Your task to perform on an android device: uninstall "Google Photos" Image 0: 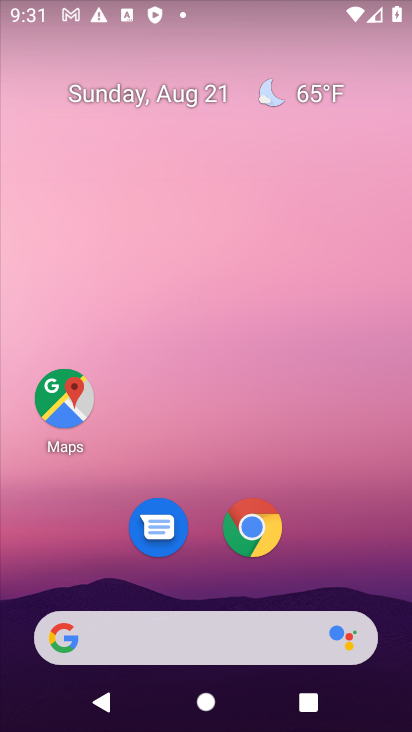
Step 0: drag from (211, 586) to (220, 275)
Your task to perform on an android device: uninstall "Google Photos" Image 1: 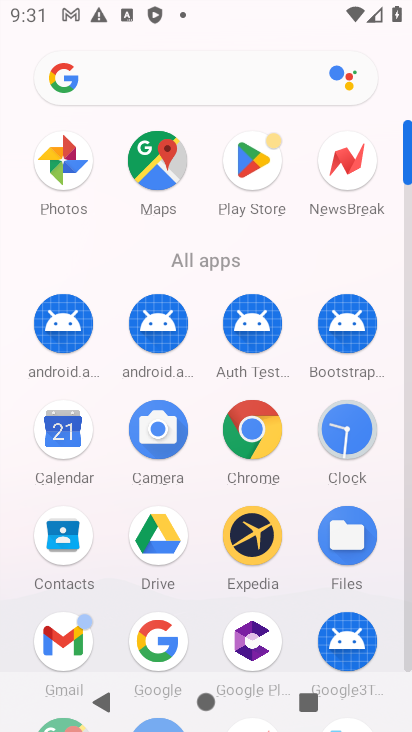
Step 1: click (261, 179)
Your task to perform on an android device: uninstall "Google Photos" Image 2: 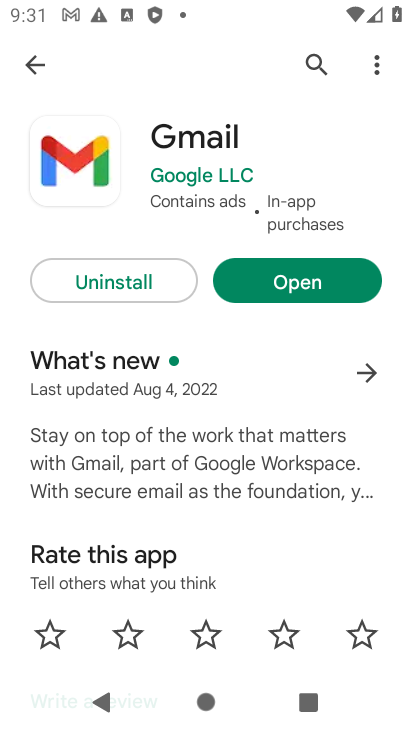
Step 2: click (28, 60)
Your task to perform on an android device: uninstall "Google Photos" Image 3: 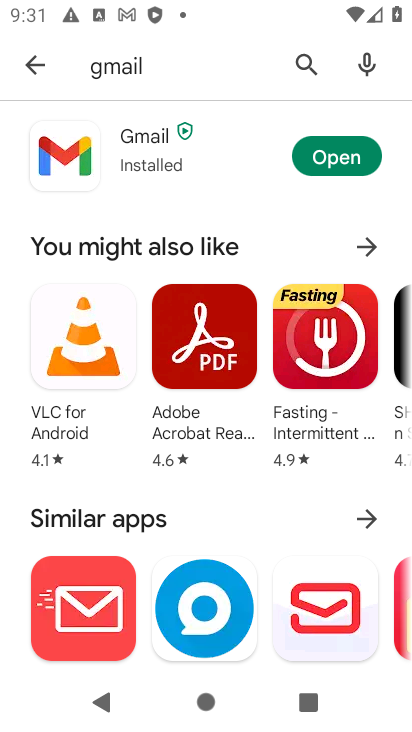
Step 3: click (158, 69)
Your task to perform on an android device: uninstall "Google Photos" Image 4: 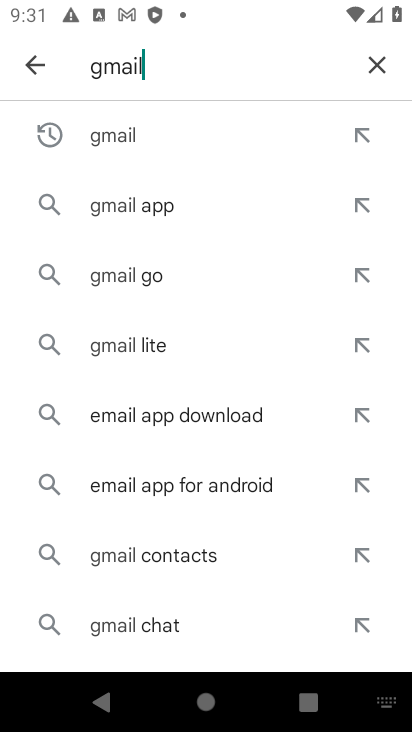
Step 4: click (371, 69)
Your task to perform on an android device: uninstall "Google Photos" Image 5: 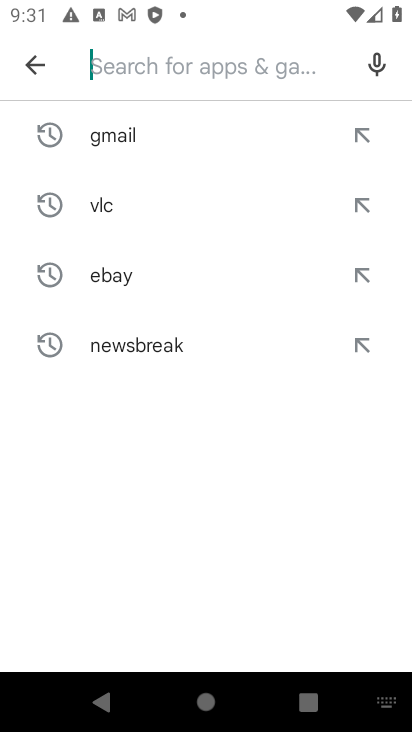
Step 5: type "google Photos"
Your task to perform on an android device: uninstall "Google Photos" Image 6: 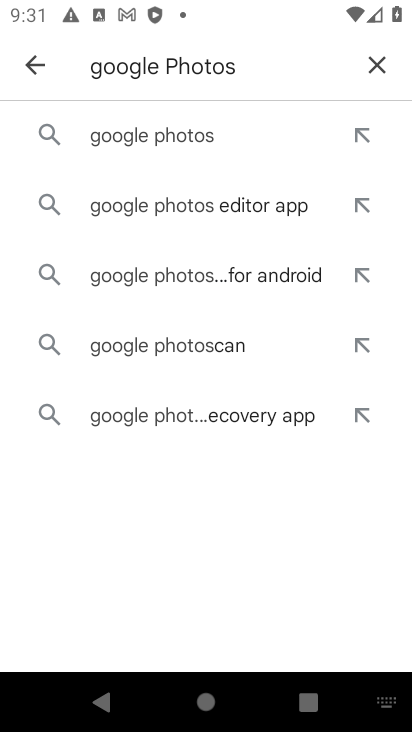
Step 6: click (176, 145)
Your task to perform on an android device: uninstall "Google Photos" Image 7: 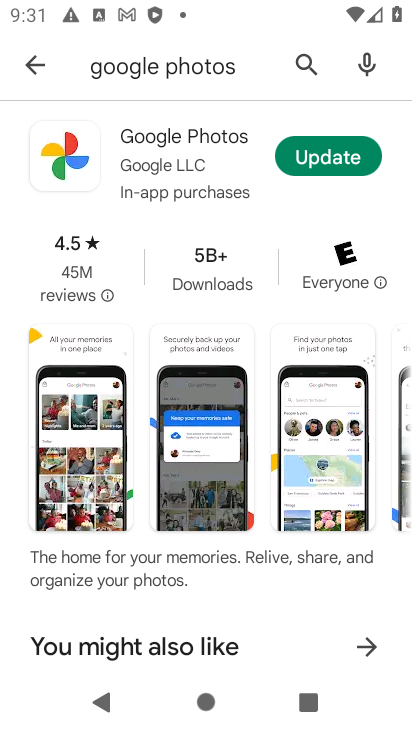
Step 7: click (189, 127)
Your task to perform on an android device: uninstall "Google Photos" Image 8: 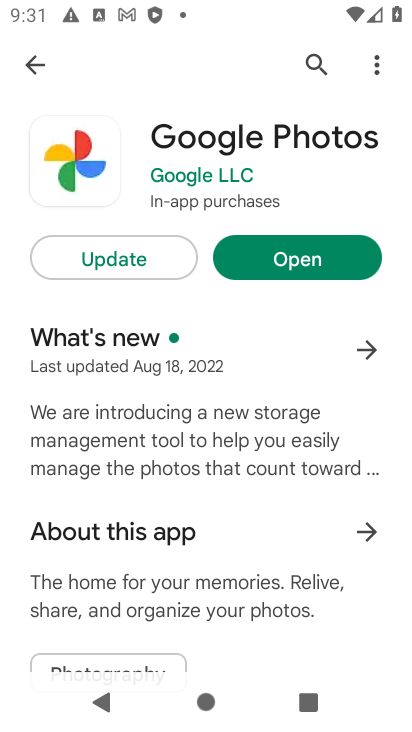
Step 8: click (197, 116)
Your task to perform on an android device: uninstall "Google Photos" Image 9: 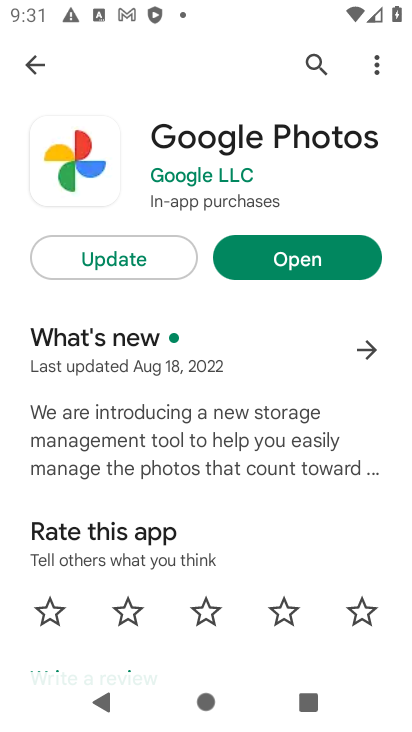
Step 9: task complete